Your task to perform on an android device: Open the calendar and show me this week's events? Image 0: 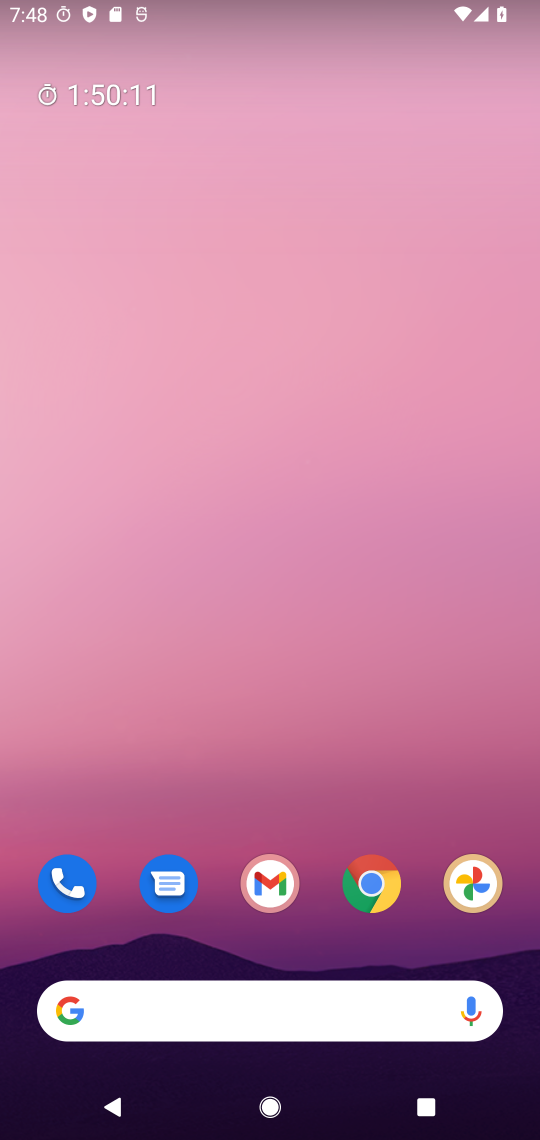
Step 0: drag from (225, 801) to (234, 87)
Your task to perform on an android device: Open the calendar and show me this week's events? Image 1: 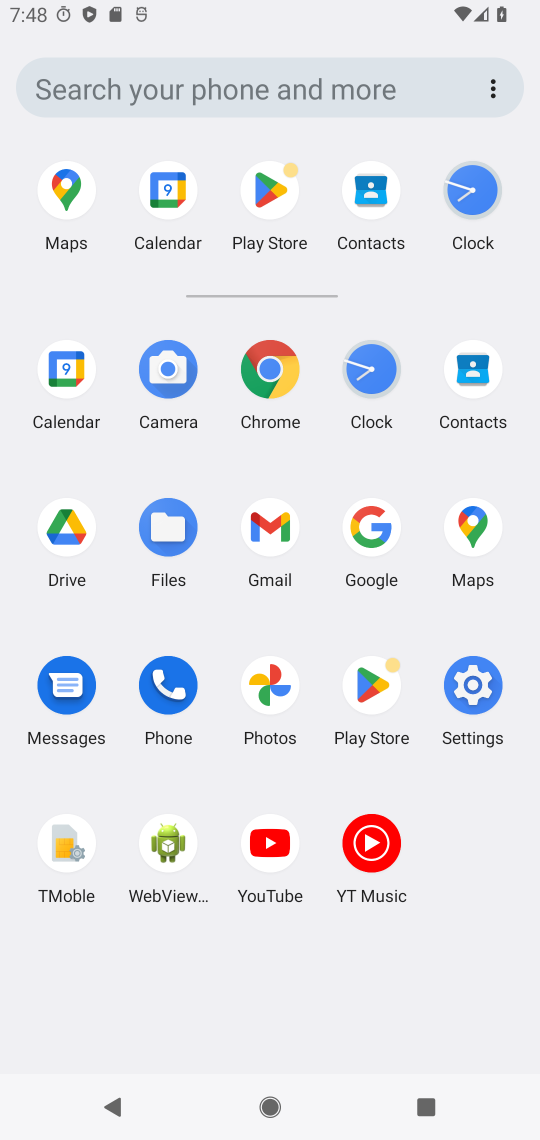
Step 1: click (190, 212)
Your task to perform on an android device: Open the calendar and show me this week's events? Image 2: 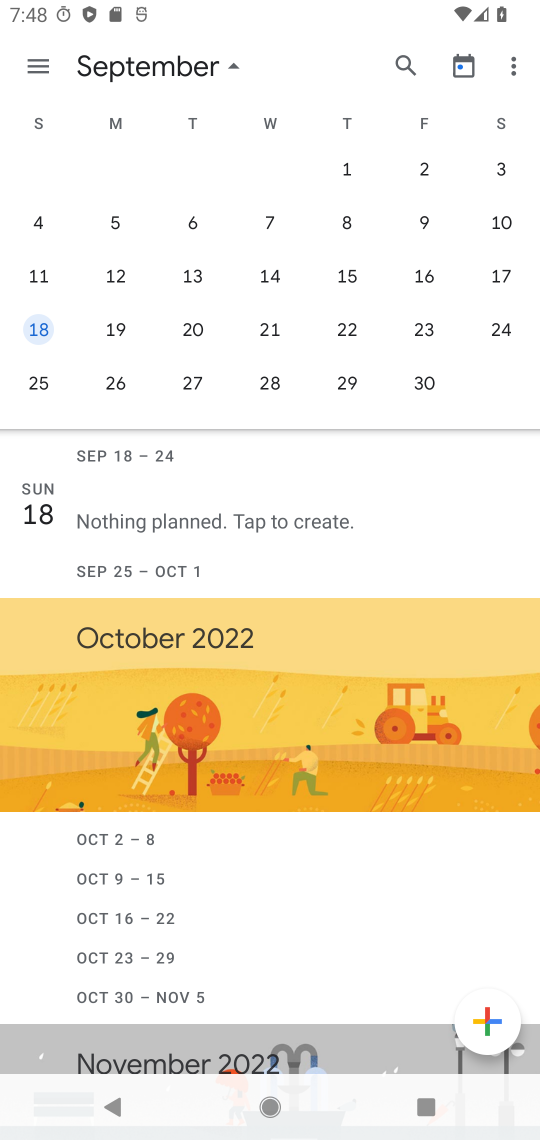
Step 2: drag from (88, 251) to (531, 280)
Your task to perform on an android device: Open the calendar and show me this week's events? Image 3: 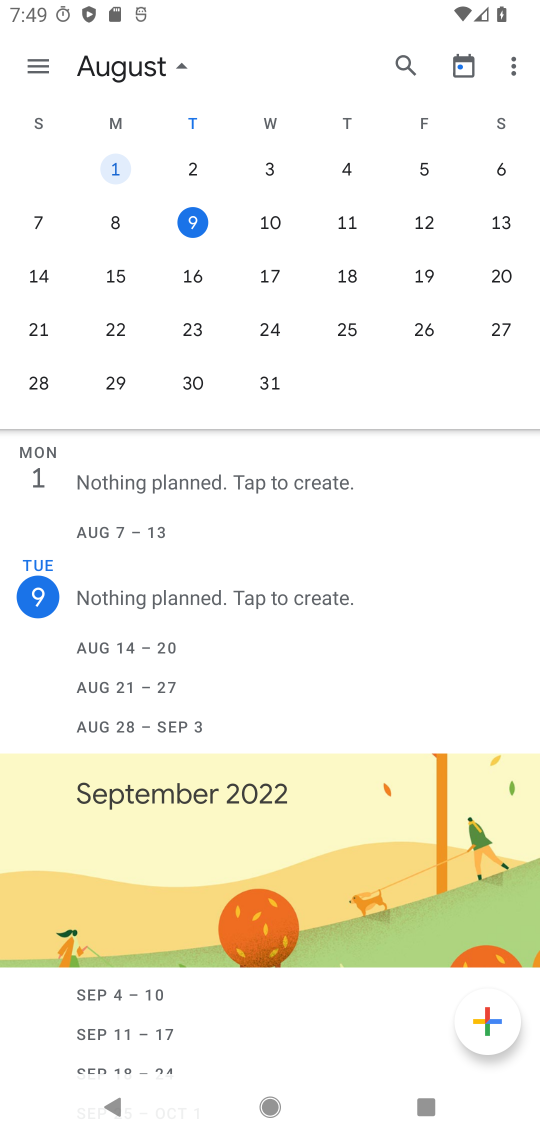
Step 3: click (366, 214)
Your task to perform on an android device: Open the calendar and show me this week's events? Image 4: 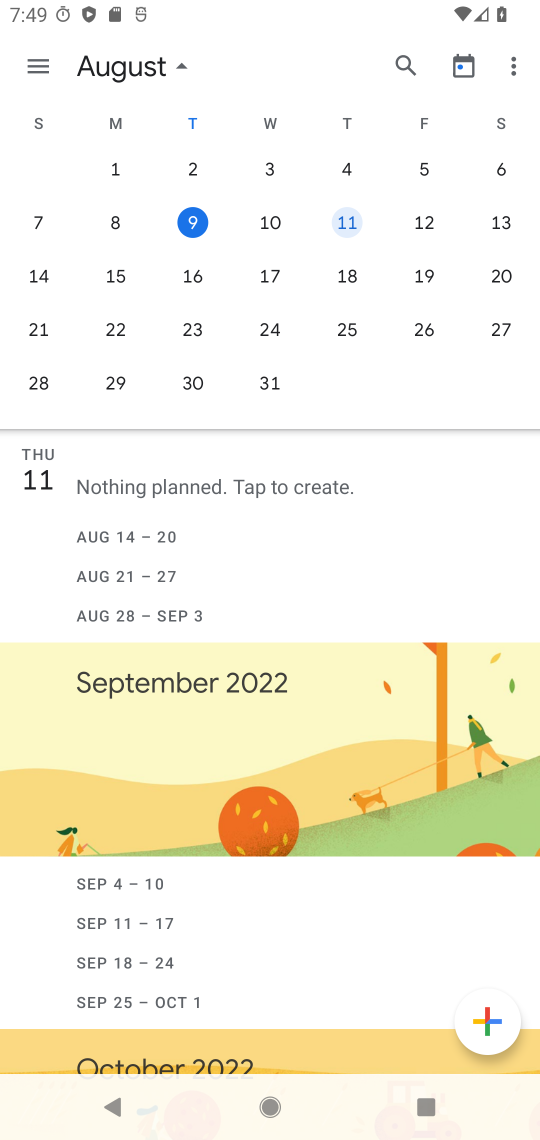
Step 4: task complete